Your task to perform on an android device: Open ESPN.com Image 0: 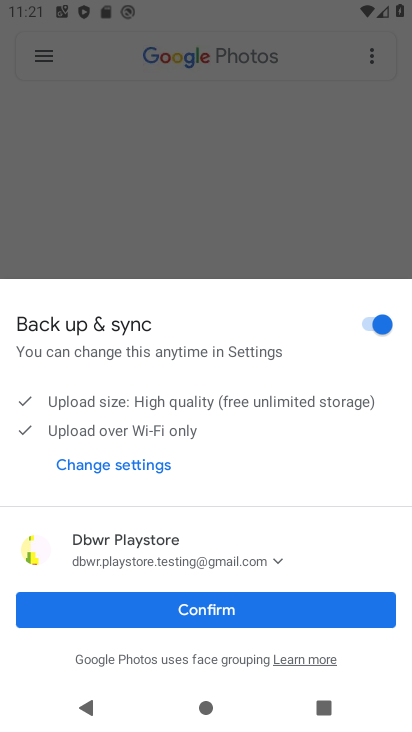
Step 0: press home button
Your task to perform on an android device: Open ESPN.com Image 1: 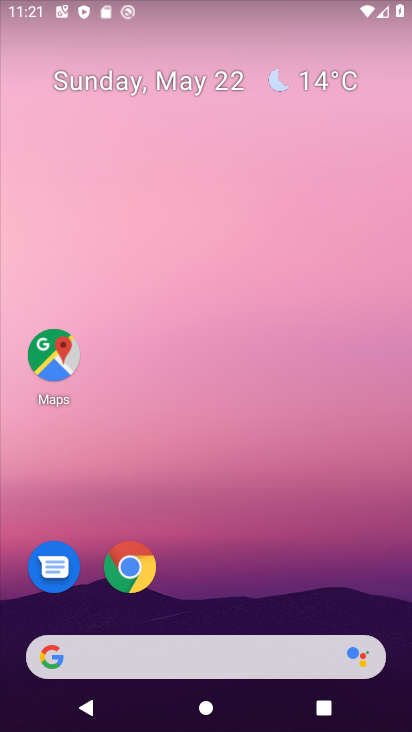
Step 1: click (135, 566)
Your task to perform on an android device: Open ESPN.com Image 2: 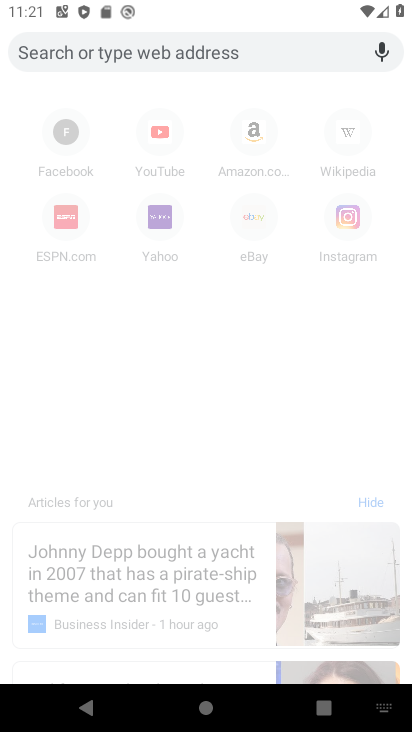
Step 2: type "ESPN.com"
Your task to perform on an android device: Open ESPN.com Image 3: 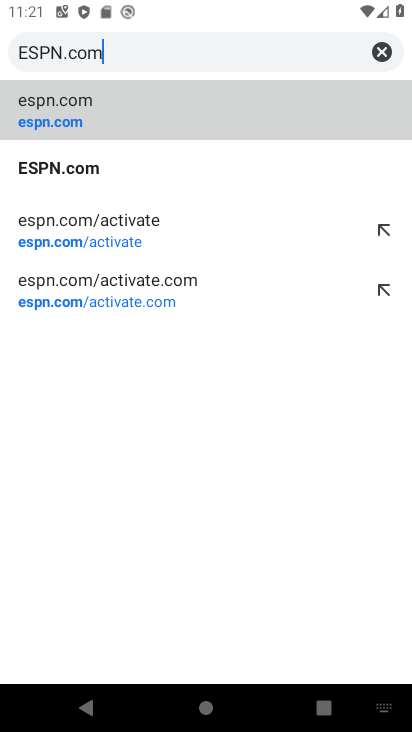
Step 3: click (116, 120)
Your task to perform on an android device: Open ESPN.com Image 4: 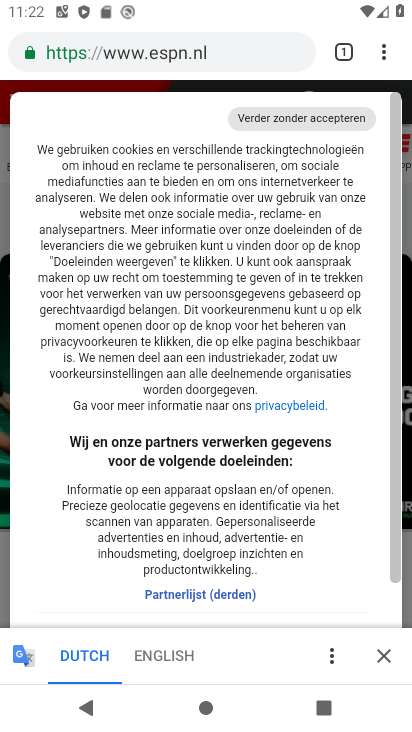
Step 4: task complete